Your task to perform on an android device: What's the weather? Image 0: 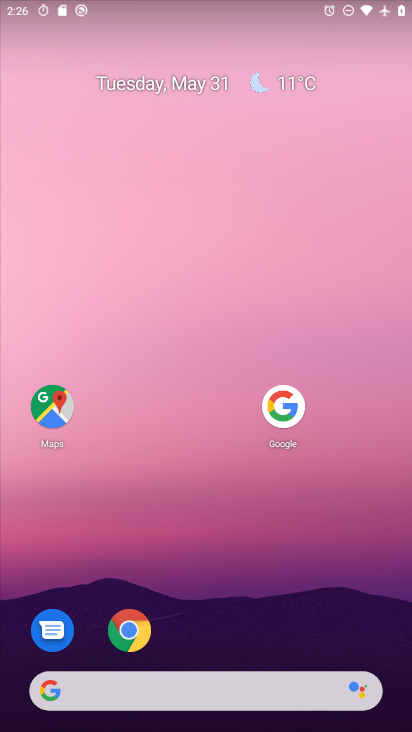
Step 0: click (292, 73)
Your task to perform on an android device: What's the weather? Image 1: 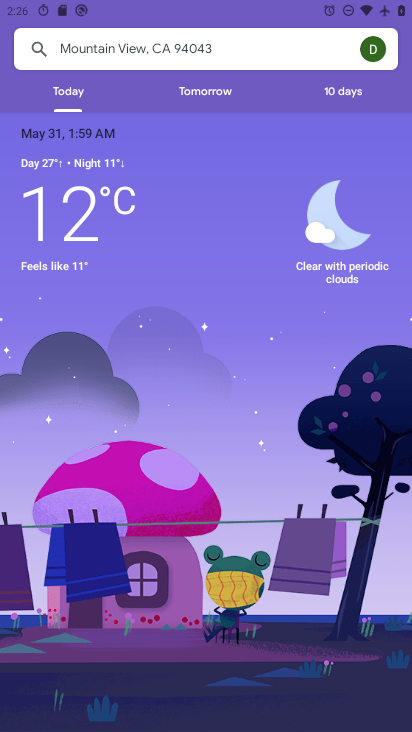
Step 1: task complete